Your task to perform on an android device: change the clock display to analog Image 0: 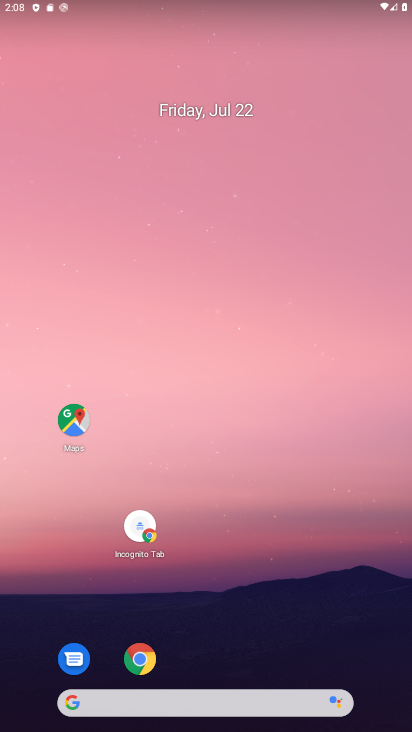
Step 0: drag from (292, 576) to (225, 1)
Your task to perform on an android device: change the clock display to analog Image 1: 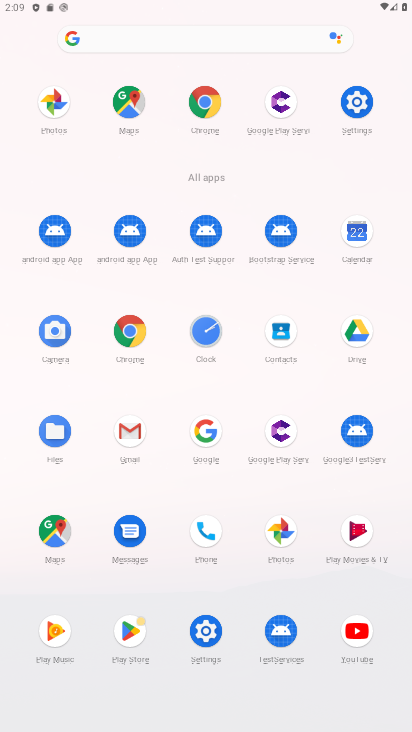
Step 1: click (204, 327)
Your task to perform on an android device: change the clock display to analog Image 2: 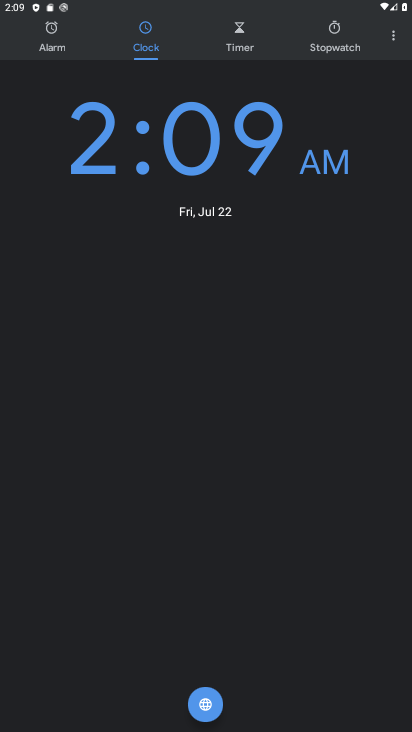
Step 2: click (401, 45)
Your task to perform on an android device: change the clock display to analog Image 3: 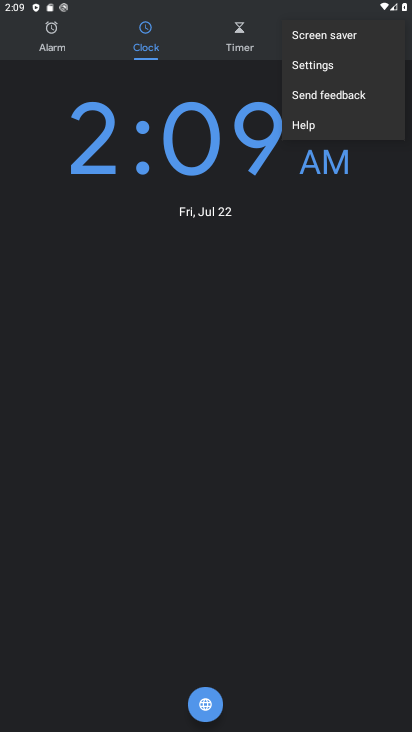
Step 3: click (319, 67)
Your task to perform on an android device: change the clock display to analog Image 4: 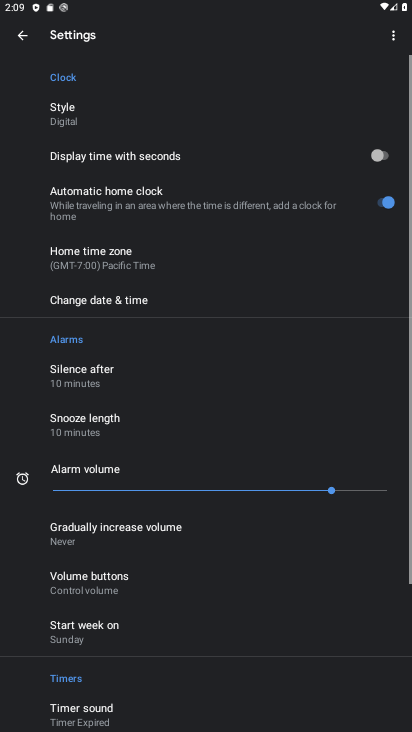
Step 4: click (145, 105)
Your task to perform on an android device: change the clock display to analog Image 5: 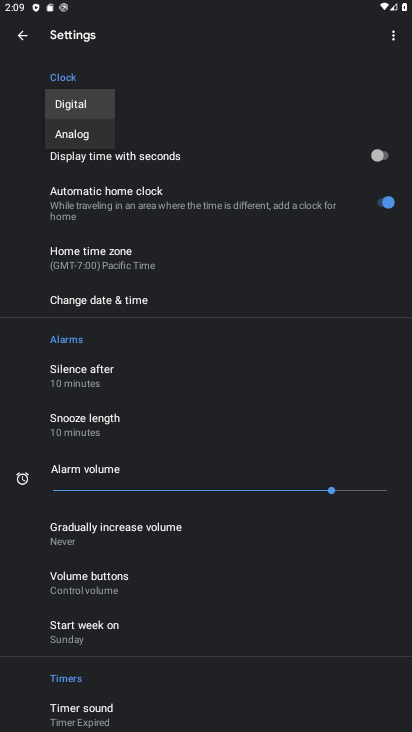
Step 5: click (93, 135)
Your task to perform on an android device: change the clock display to analog Image 6: 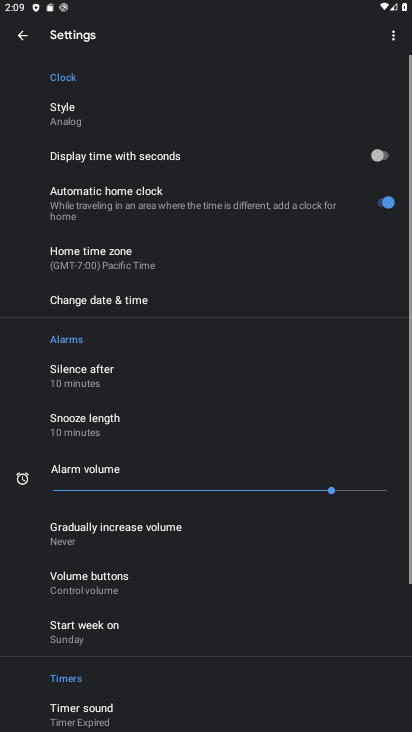
Step 6: task complete